Your task to perform on an android device: Show me recent news Image 0: 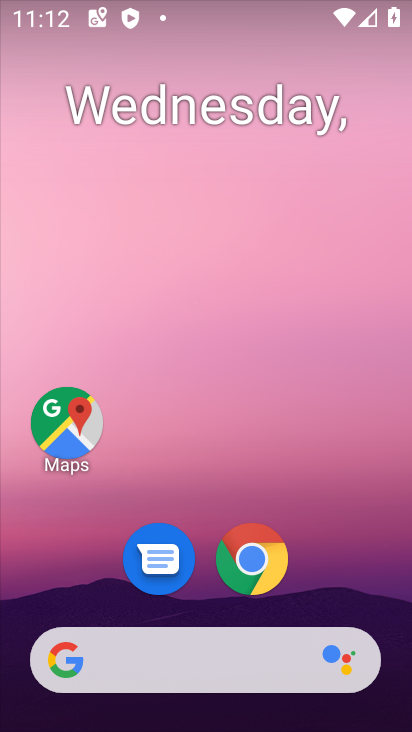
Step 0: drag from (200, 547) to (235, 165)
Your task to perform on an android device: Show me recent news Image 1: 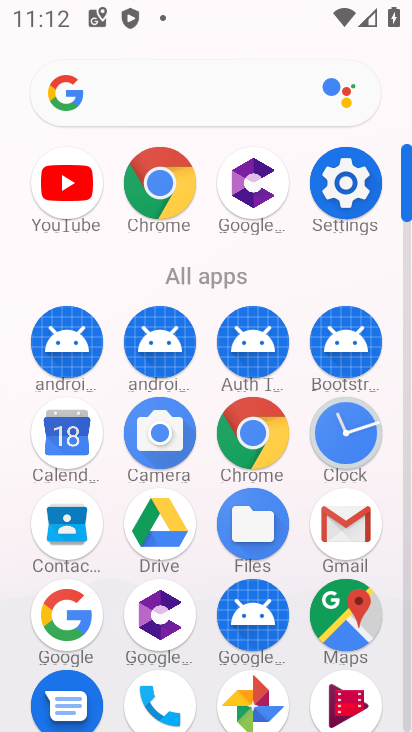
Step 1: click (125, 101)
Your task to perform on an android device: Show me recent news Image 2: 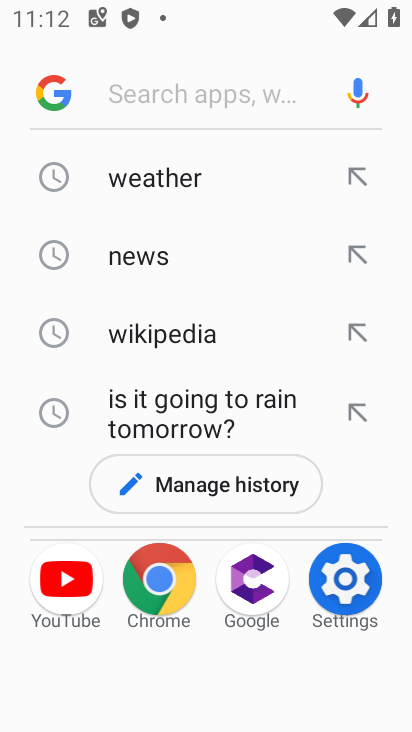
Step 2: type "recent news"
Your task to perform on an android device: Show me recent news Image 3: 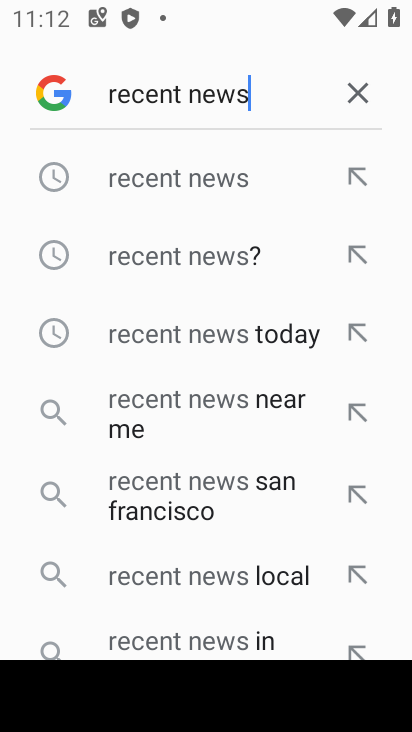
Step 3: click (161, 155)
Your task to perform on an android device: Show me recent news Image 4: 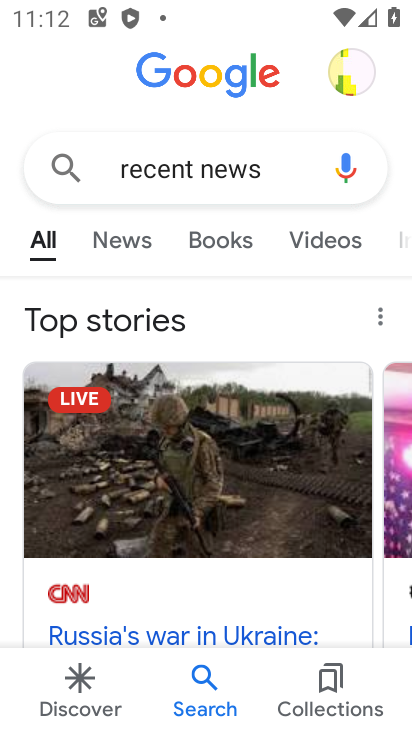
Step 4: task complete